Your task to perform on an android device: change keyboard looks Image 0: 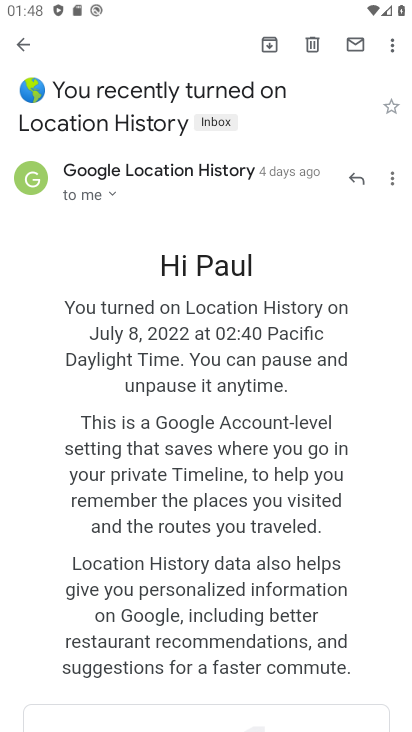
Step 0: press home button
Your task to perform on an android device: change keyboard looks Image 1: 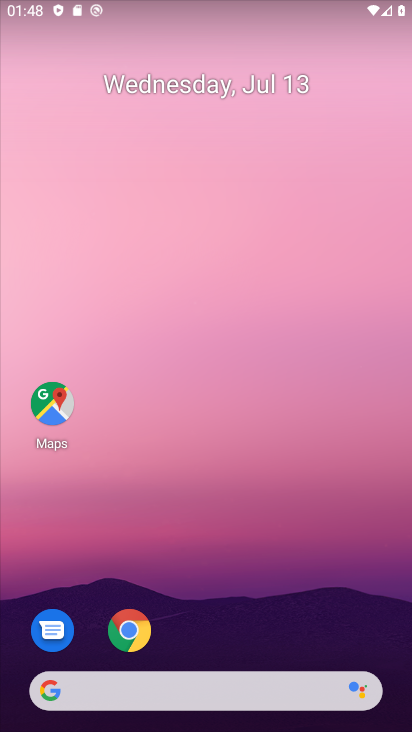
Step 1: drag from (214, 649) to (217, 177)
Your task to perform on an android device: change keyboard looks Image 2: 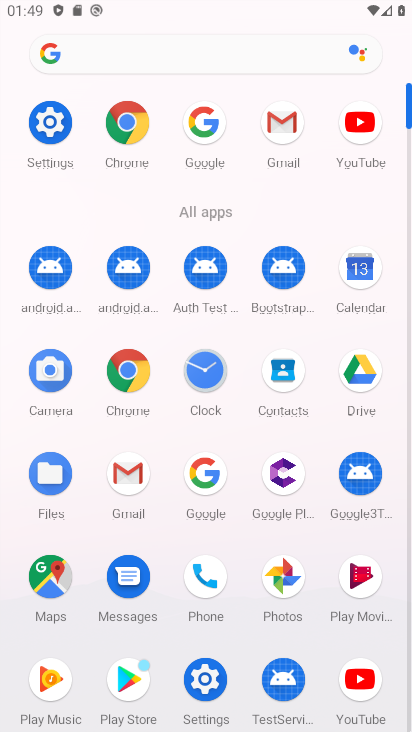
Step 2: click (67, 127)
Your task to perform on an android device: change keyboard looks Image 3: 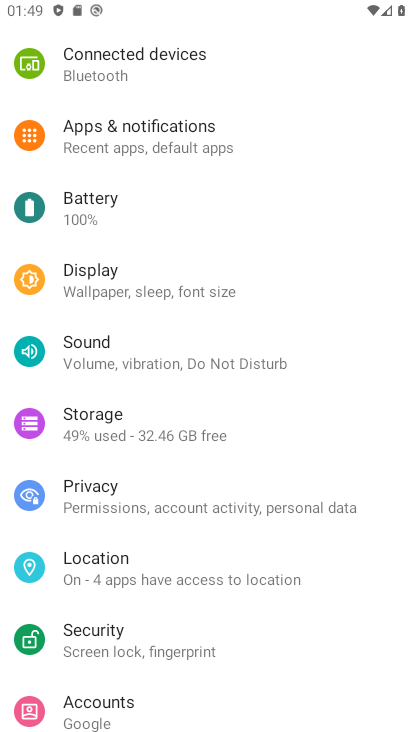
Step 3: drag from (166, 652) to (185, 205)
Your task to perform on an android device: change keyboard looks Image 4: 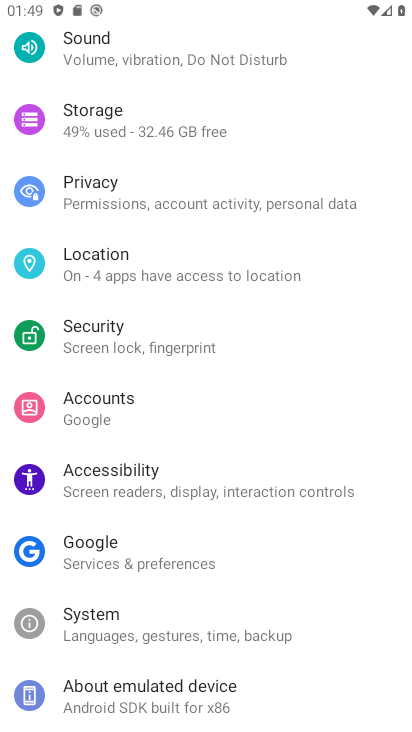
Step 4: click (159, 632)
Your task to perform on an android device: change keyboard looks Image 5: 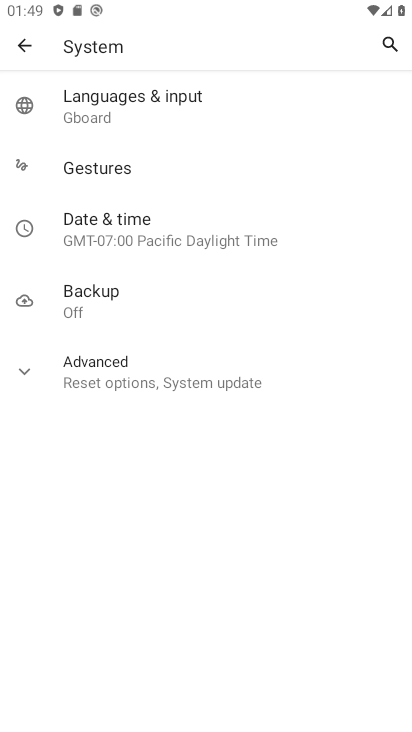
Step 5: click (175, 110)
Your task to perform on an android device: change keyboard looks Image 6: 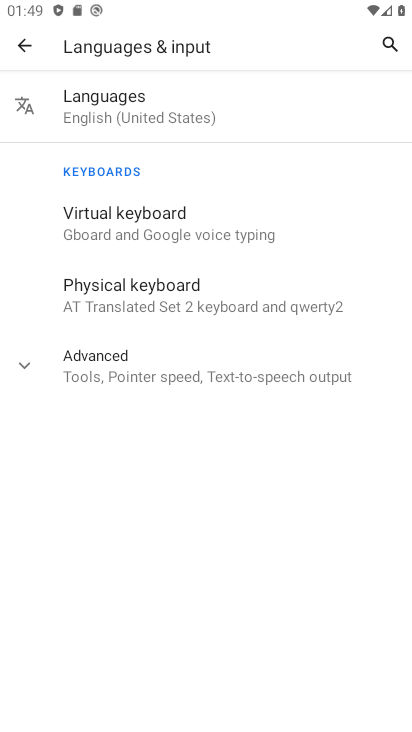
Step 6: click (149, 232)
Your task to perform on an android device: change keyboard looks Image 7: 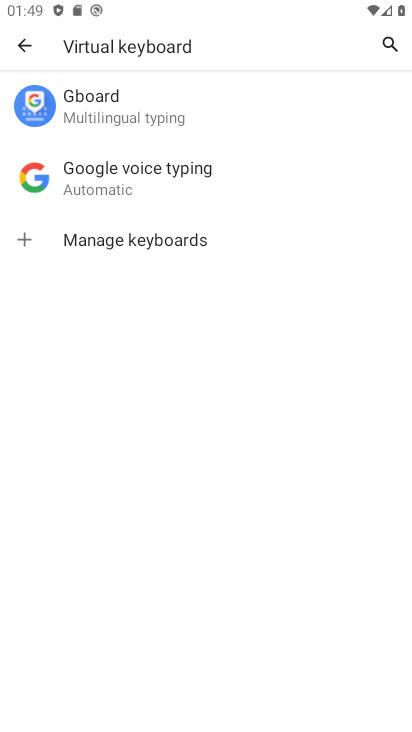
Step 7: click (140, 125)
Your task to perform on an android device: change keyboard looks Image 8: 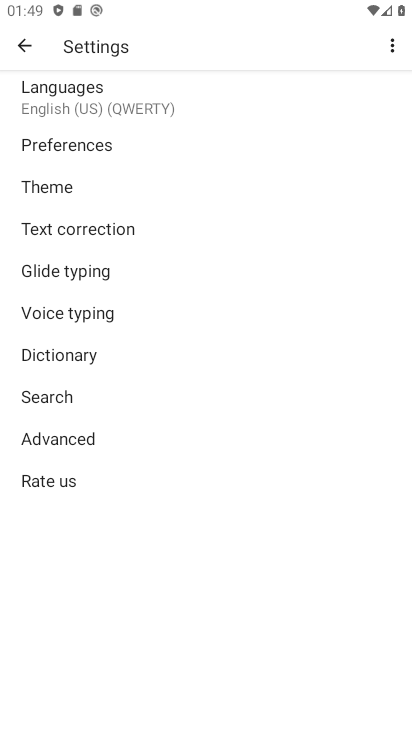
Step 8: click (78, 182)
Your task to perform on an android device: change keyboard looks Image 9: 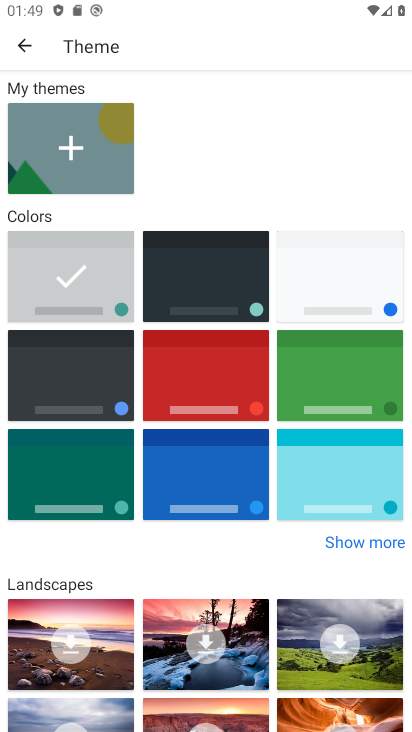
Step 9: click (290, 251)
Your task to perform on an android device: change keyboard looks Image 10: 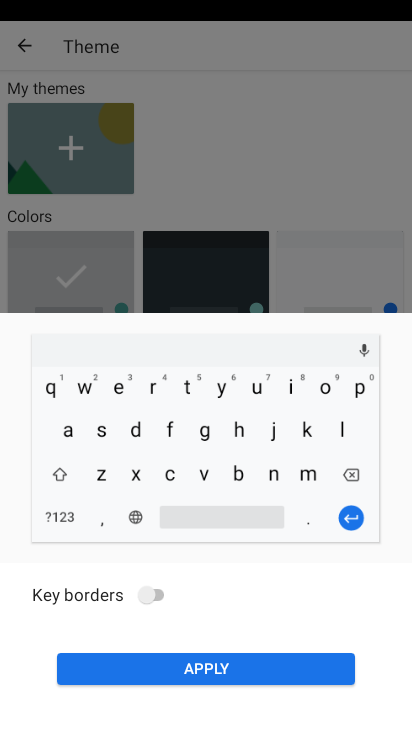
Step 10: click (253, 667)
Your task to perform on an android device: change keyboard looks Image 11: 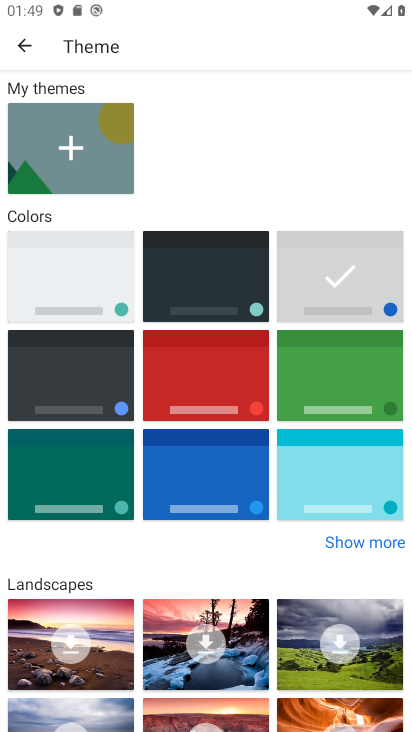
Step 11: task complete